Your task to perform on an android device: empty trash in the gmail app Image 0: 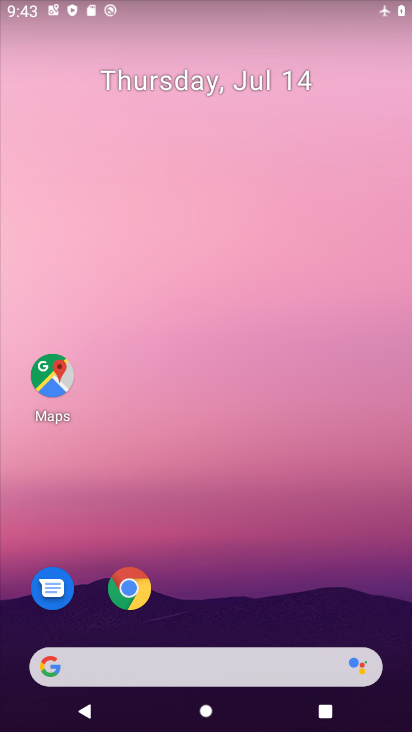
Step 0: drag from (372, 579) to (138, 31)
Your task to perform on an android device: empty trash in the gmail app Image 1: 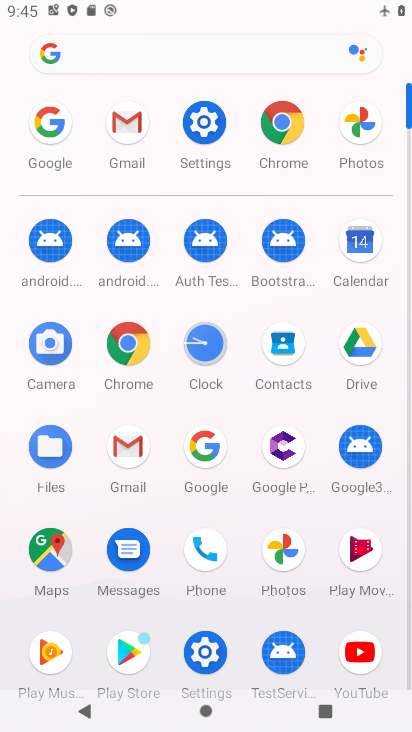
Step 1: click (116, 458)
Your task to perform on an android device: empty trash in the gmail app Image 2: 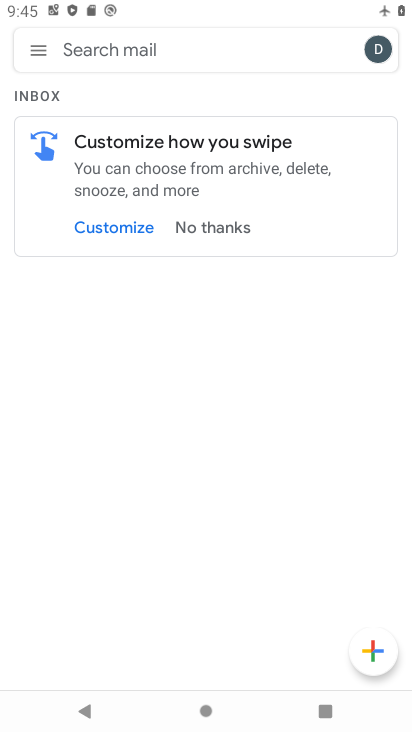
Step 2: click (34, 47)
Your task to perform on an android device: empty trash in the gmail app Image 3: 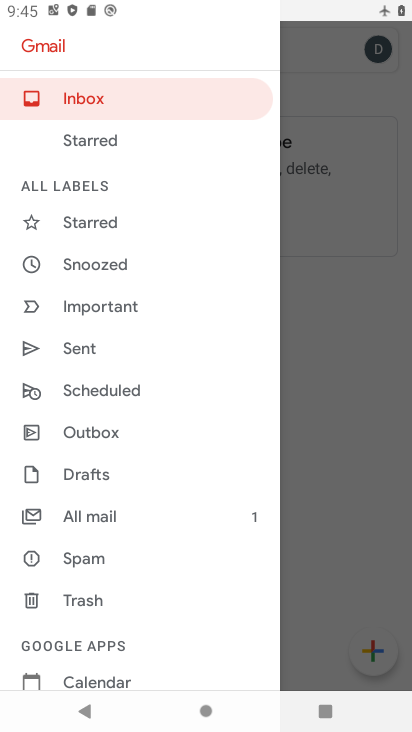
Step 3: click (98, 597)
Your task to perform on an android device: empty trash in the gmail app Image 4: 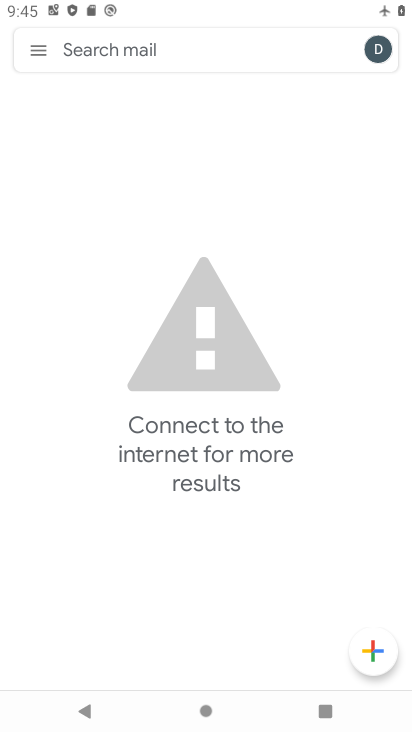
Step 4: task complete